Your task to perform on an android device: Do I have any events this weekend? Image 0: 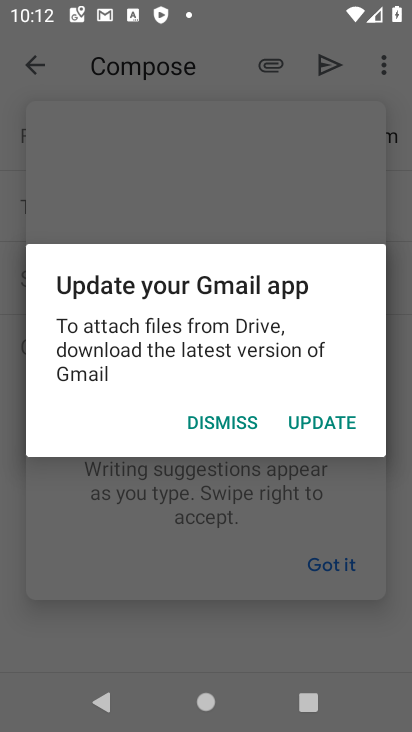
Step 0: press home button
Your task to perform on an android device: Do I have any events this weekend? Image 1: 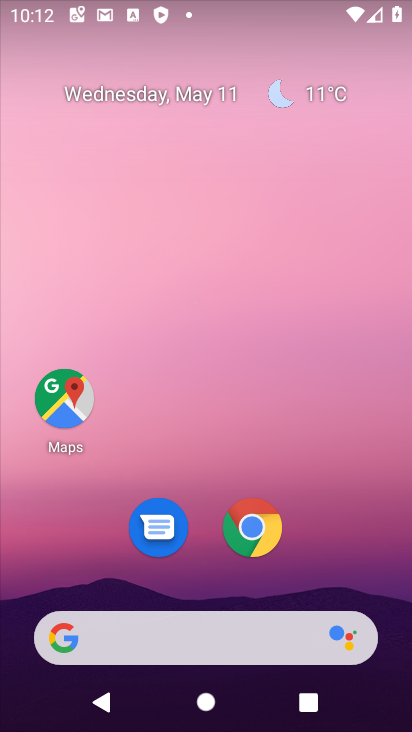
Step 1: drag from (393, 482) to (370, 16)
Your task to perform on an android device: Do I have any events this weekend? Image 2: 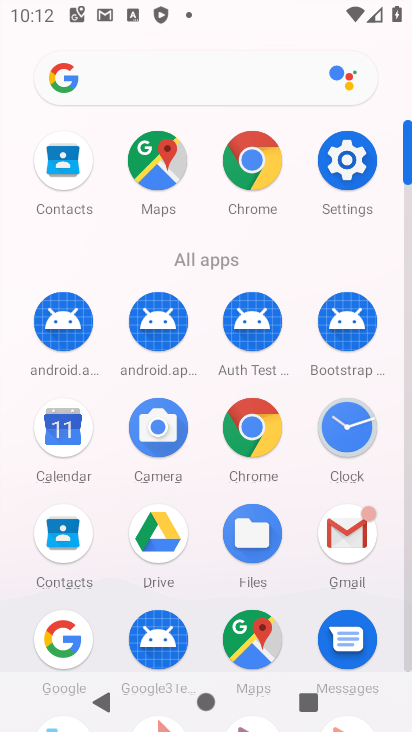
Step 2: click (59, 444)
Your task to perform on an android device: Do I have any events this weekend? Image 3: 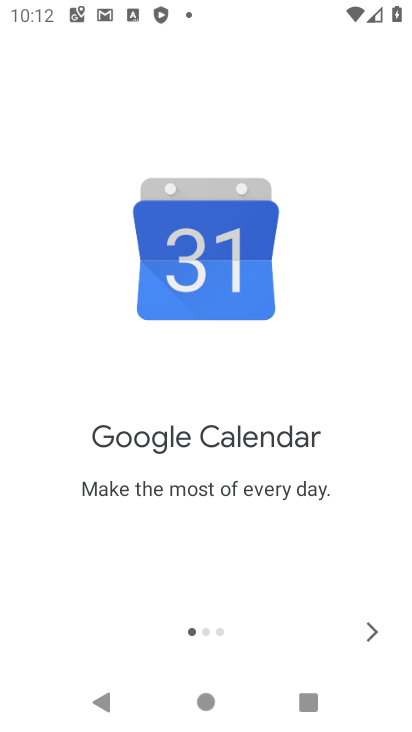
Step 3: click (377, 635)
Your task to perform on an android device: Do I have any events this weekend? Image 4: 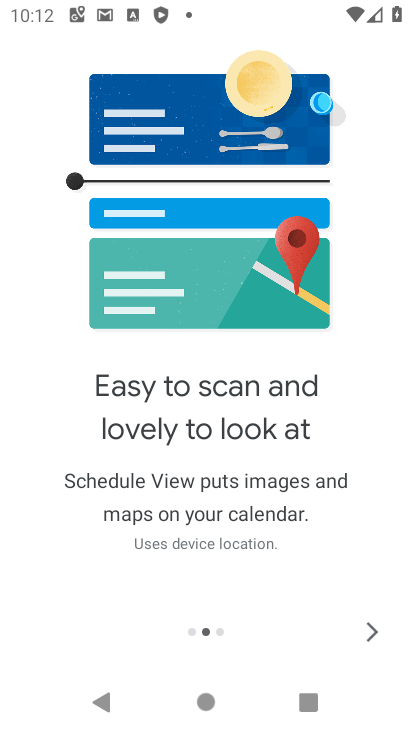
Step 4: click (377, 635)
Your task to perform on an android device: Do I have any events this weekend? Image 5: 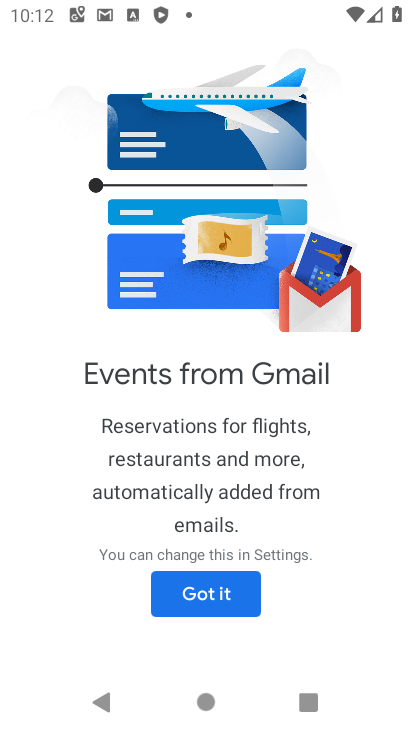
Step 5: click (228, 600)
Your task to perform on an android device: Do I have any events this weekend? Image 6: 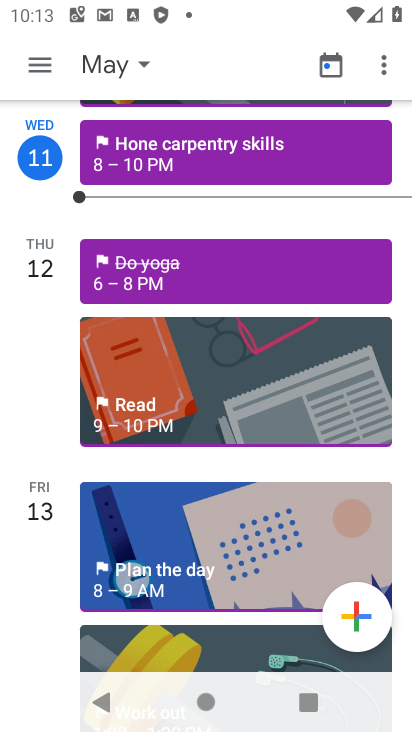
Step 6: click (125, 60)
Your task to perform on an android device: Do I have any events this weekend? Image 7: 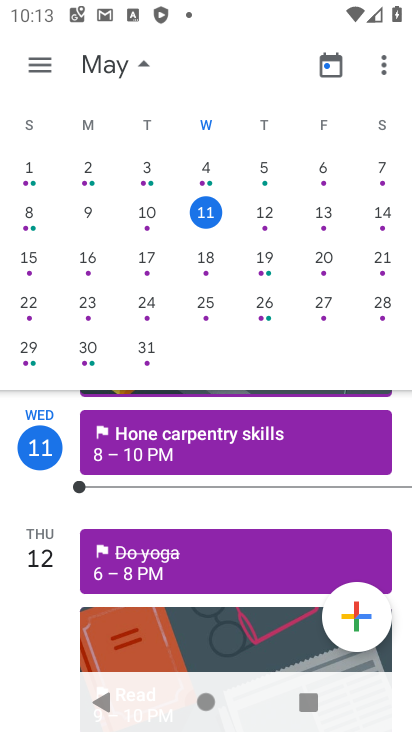
Step 7: click (259, 216)
Your task to perform on an android device: Do I have any events this weekend? Image 8: 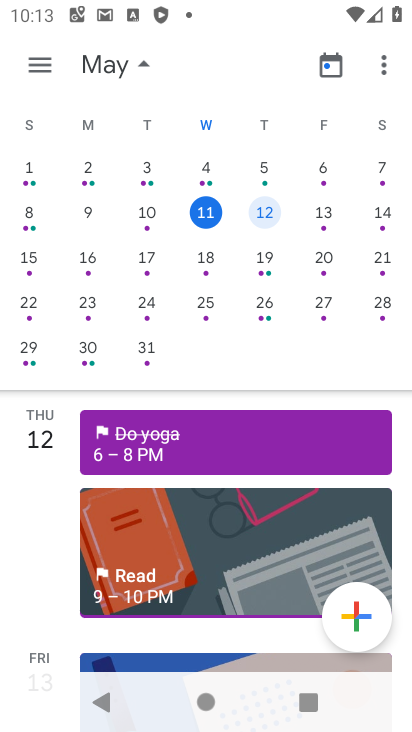
Step 8: task complete